Your task to perform on an android device: Go to CNN.com Image 0: 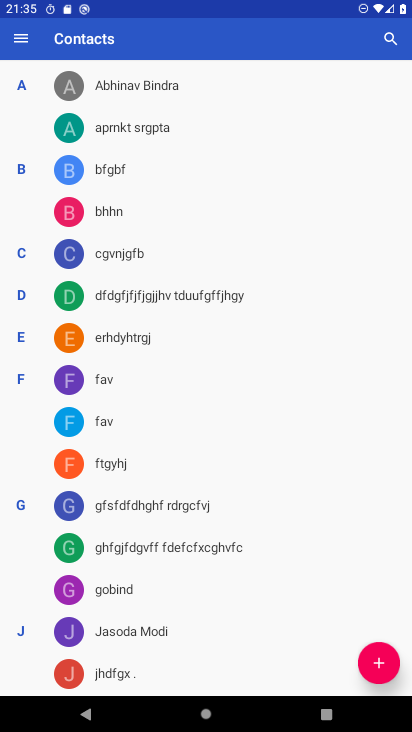
Step 0: press home button
Your task to perform on an android device: Go to CNN.com Image 1: 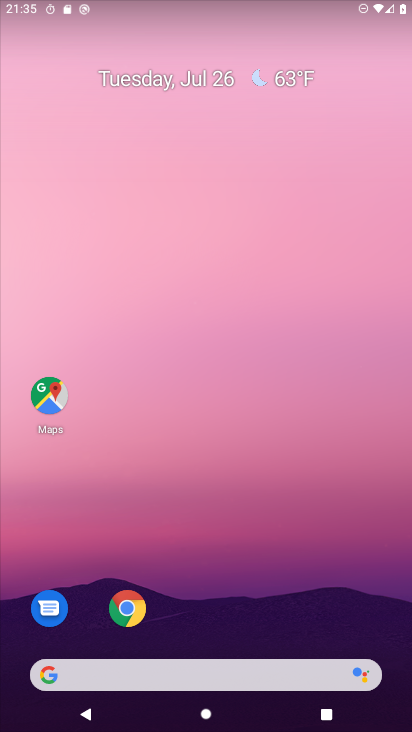
Step 1: click (116, 675)
Your task to perform on an android device: Go to CNN.com Image 2: 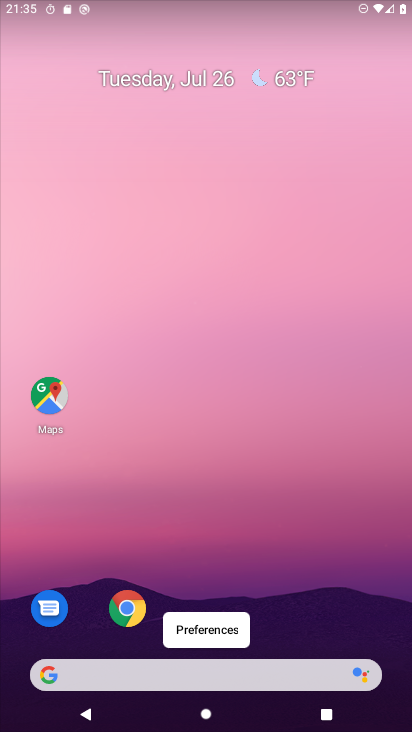
Step 2: click (81, 679)
Your task to perform on an android device: Go to CNN.com Image 3: 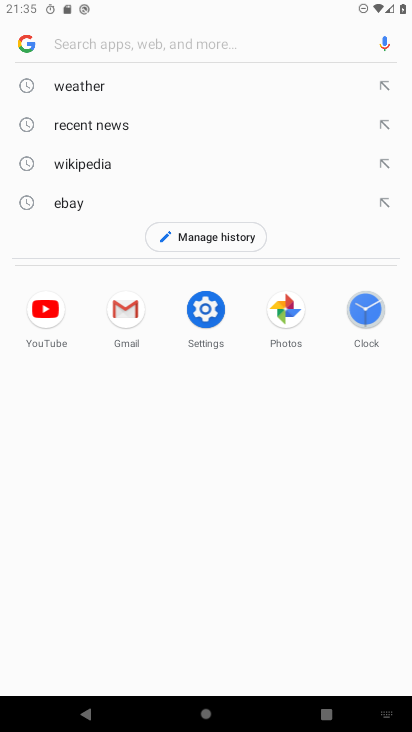
Step 3: type "CNN.com"
Your task to perform on an android device: Go to CNN.com Image 4: 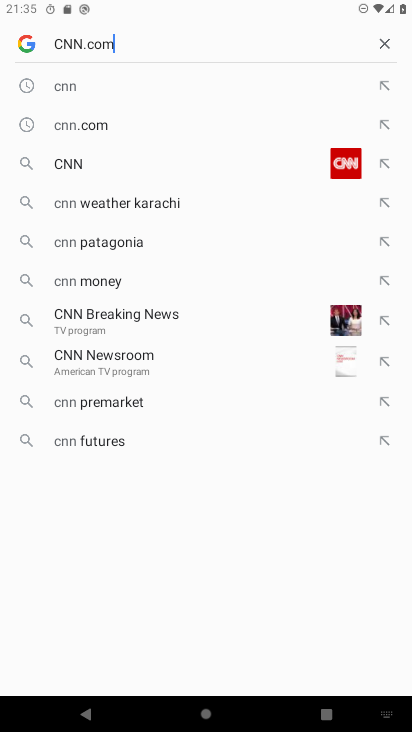
Step 4: type ""
Your task to perform on an android device: Go to CNN.com Image 5: 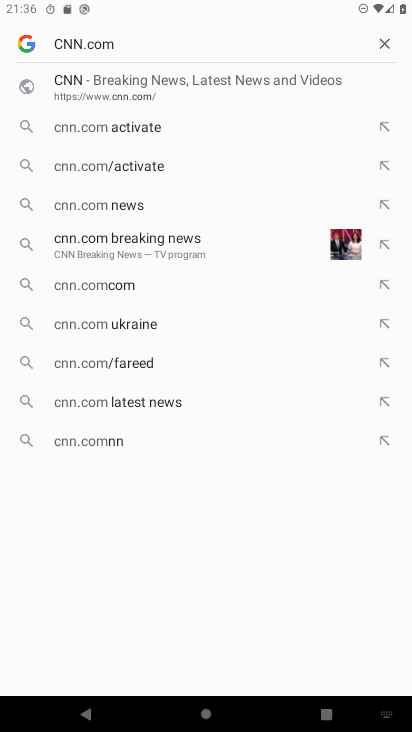
Step 5: type ""
Your task to perform on an android device: Go to CNN.com Image 6: 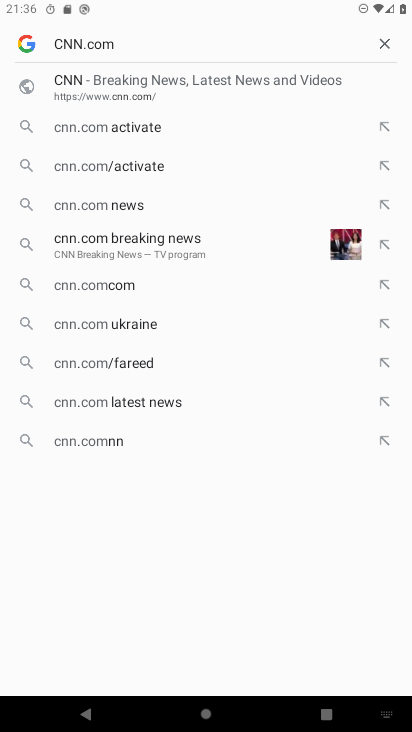
Step 6: task complete